Your task to perform on an android device: turn notification dots on Image 0: 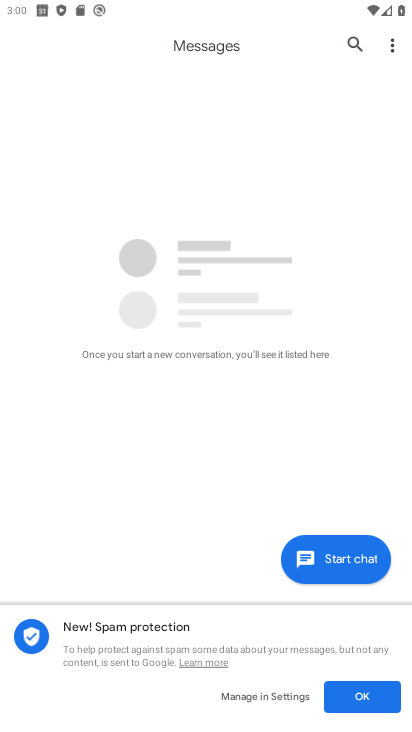
Step 0: press home button
Your task to perform on an android device: turn notification dots on Image 1: 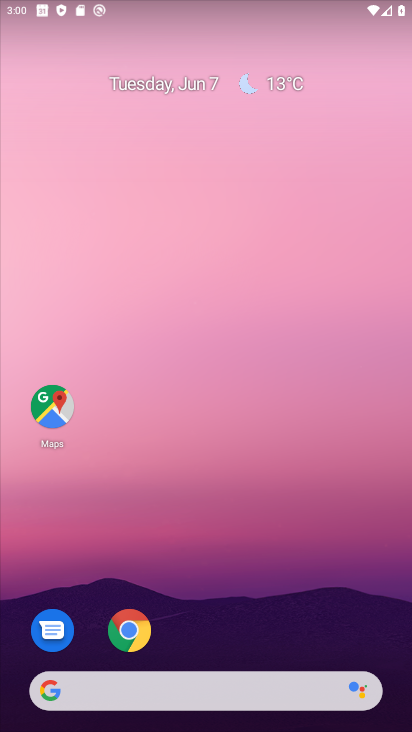
Step 1: drag from (237, 669) to (310, 199)
Your task to perform on an android device: turn notification dots on Image 2: 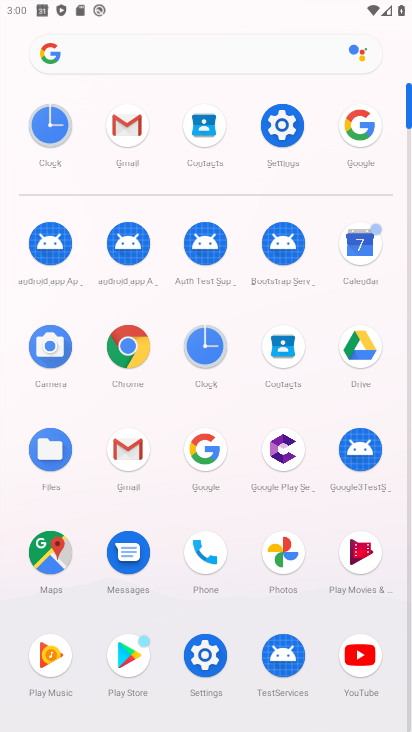
Step 2: click (274, 116)
Your task to perform on an android device: turn notification dots on Image 3: 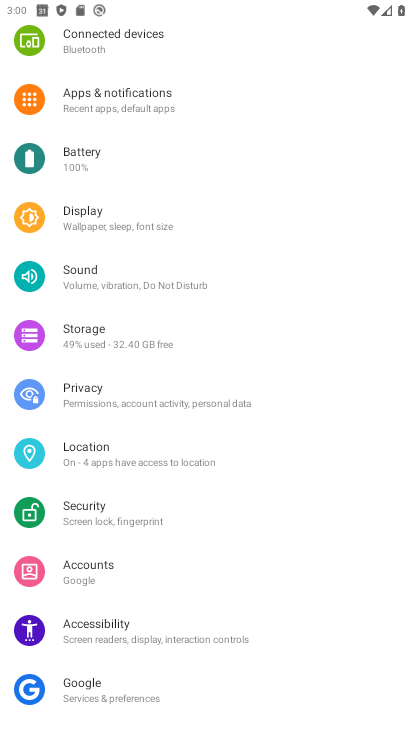
Step 3: click (174, 110)
Your task to perform on an android device: turn notification dots on Image 4: 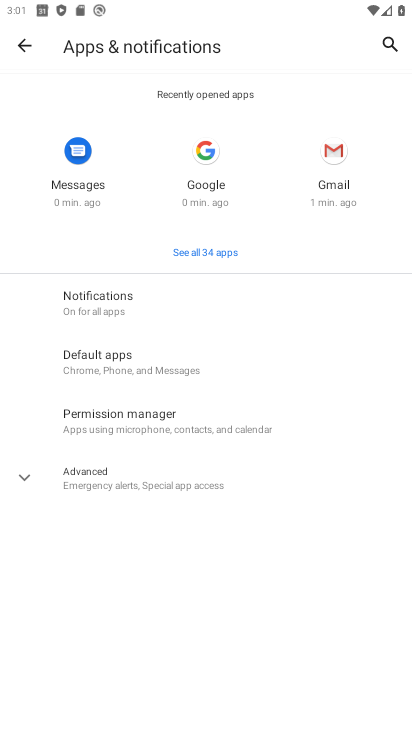
Step 4: click (122, 307)
Your task to perform on an android device: turn notification dots on Image 5: 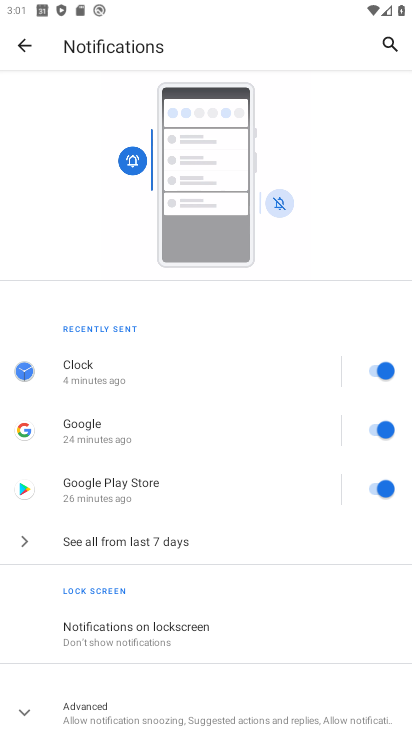
Step 5: drag from (199, 591) to (193, 423)
Your task to perform on an android device: turn notification dots on Image 6: 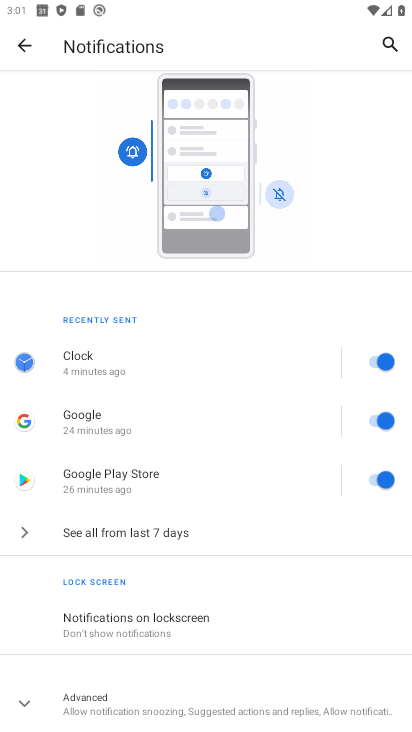
Step 6: click (130, 685)
Your task to perform on an android device: turn notification dots on Image 7: 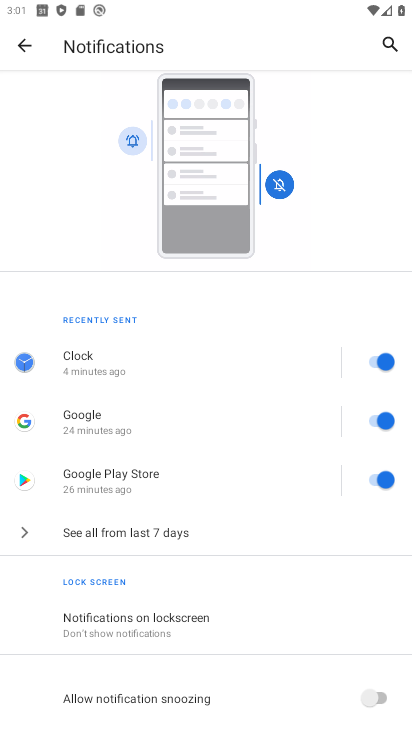
Step 7: task complete